Your task to perform on an android device: add a contact Image 0: 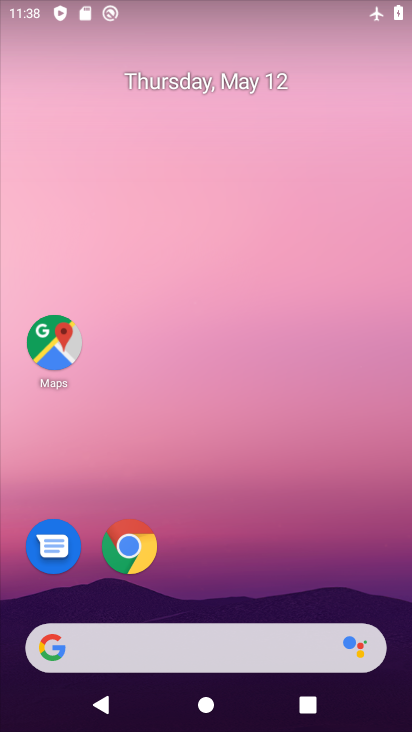
Step 0: drag from (230, 728) to (219, 77)
Your task to perform on an android device: add a contact Image 1: 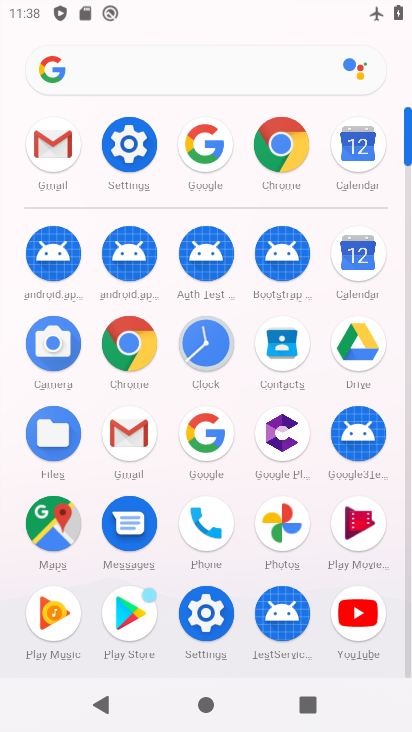
Step 1: click (287, 342)
Your task to perform on an android device: add a contact Image 2: 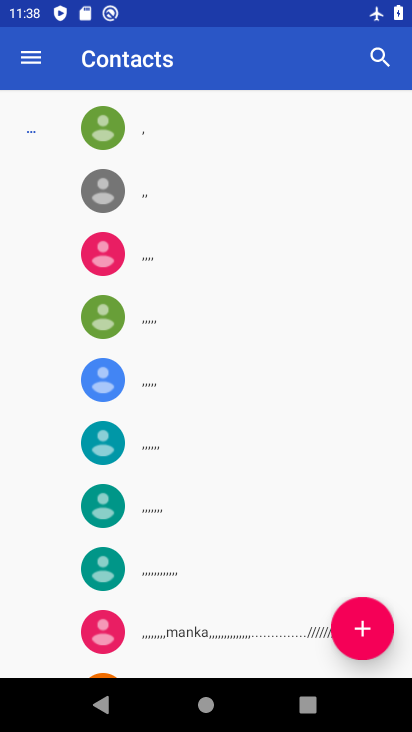
Step 2: click (365, 623)
Your task to perform on an android device: add a contact Image 3: 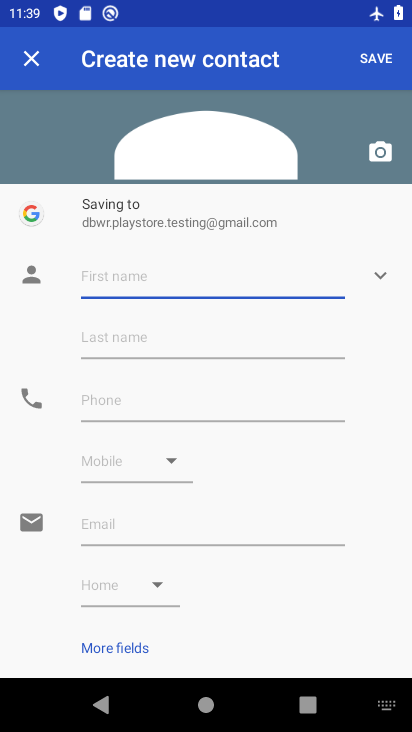
Step 3: type "chop"
Your task to perform on an android device: add a contact Image 4: 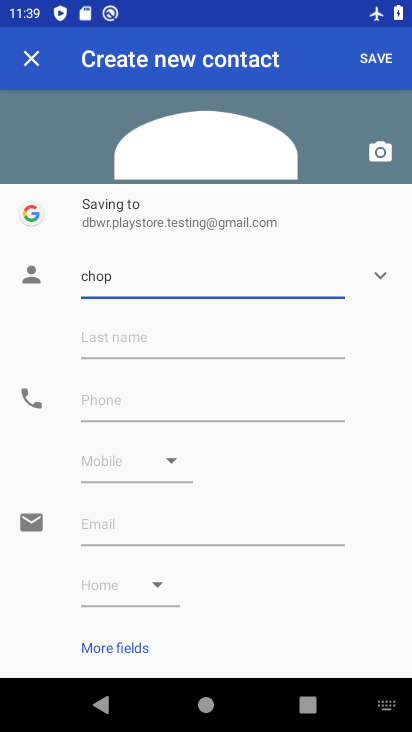
Step 4: click (140, 396)
Your task to perform on an android device: add a contact Image 5: 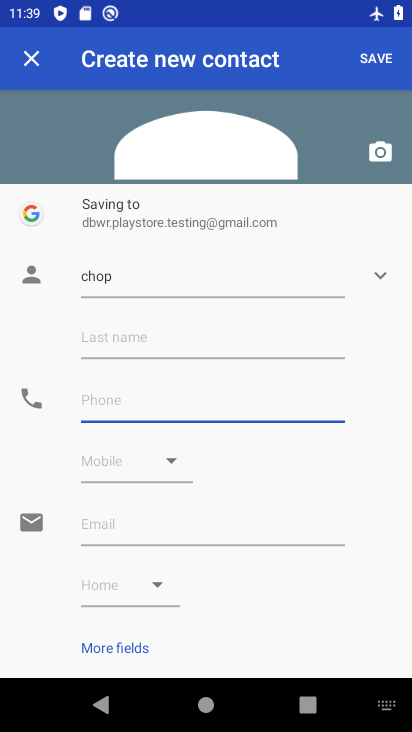
Step 5: type "8767"
Your task to perform on an android device: add a contact Image 6: 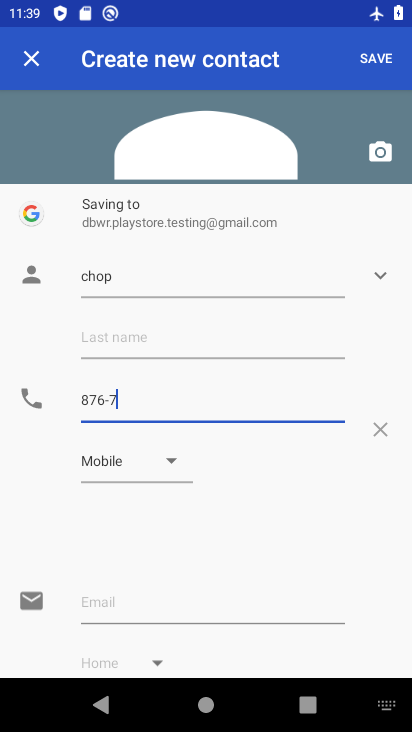
Step 6: type ""
Your task to perform on an android device: add a contact Image 7: 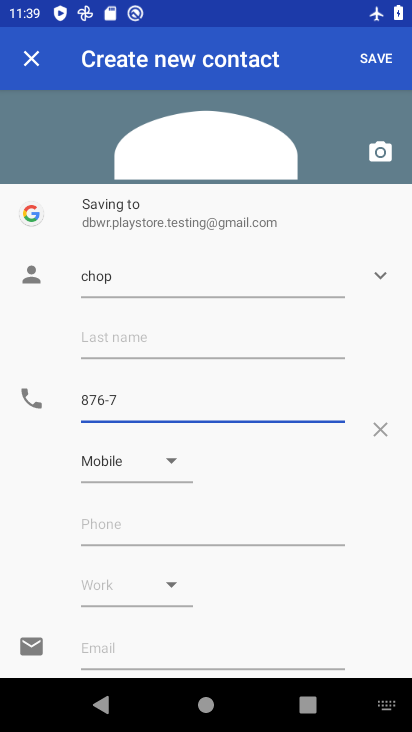
Step 7: click (383, 59)
Your task to perform on an android device: add a contact Image 8: 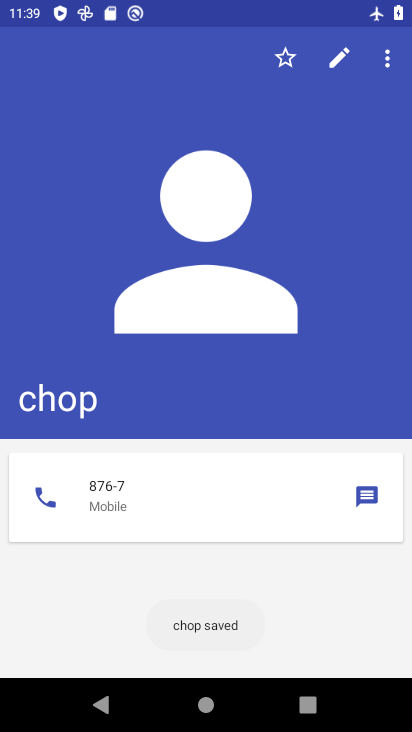
Step 8: task complete